Your task to perform on an android device: What is the recent news? Image 0: 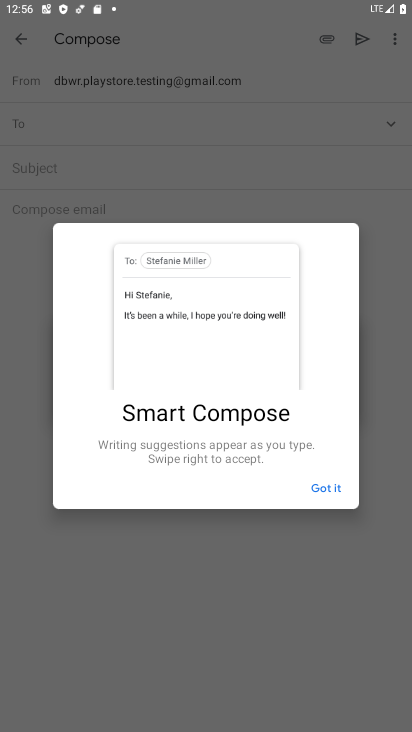
Step 0: press home button
Your task to perform on an android device: What is the recent news? Image 1: 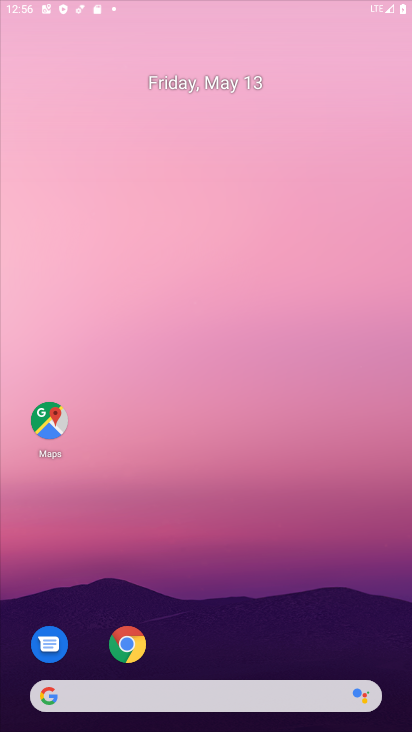
Step 1: drag from (302, 655) to (288, 112)
Your task to perform on an android device: What is the recent news? Image 2: 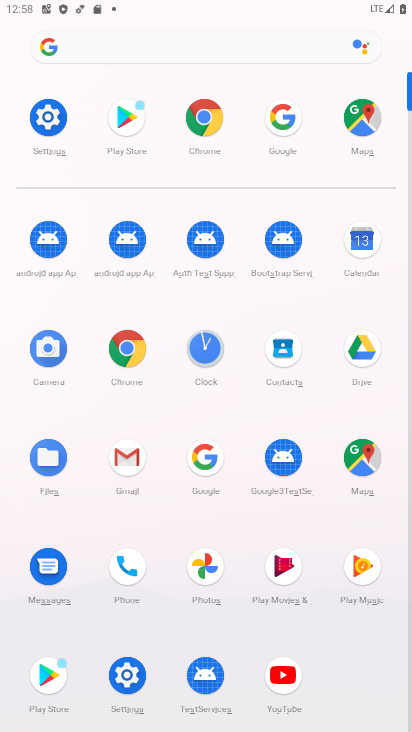
Step 2: click (127, 348)
Your task to perform on an android device: What is the recent news? Image 3: 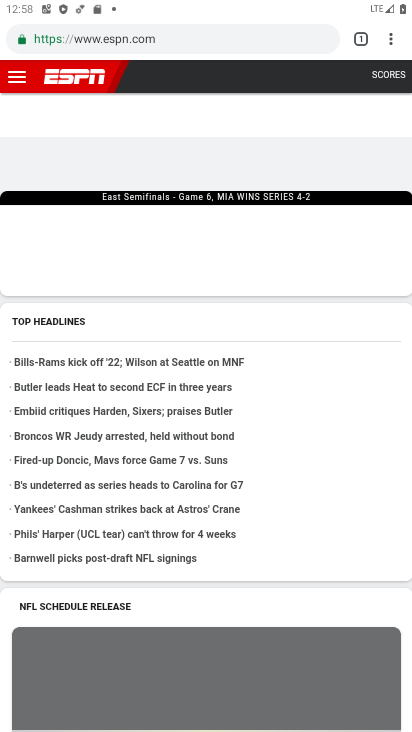
Step 3: press back button
Your task to perform on an android device: What is the recent news? Image 4: 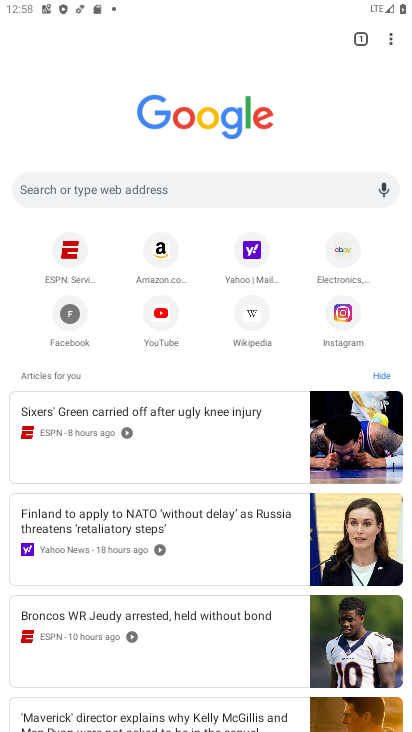
Step 4: click (193, 449)
Your task to perform on an android device: What is the recent news? Image 5: 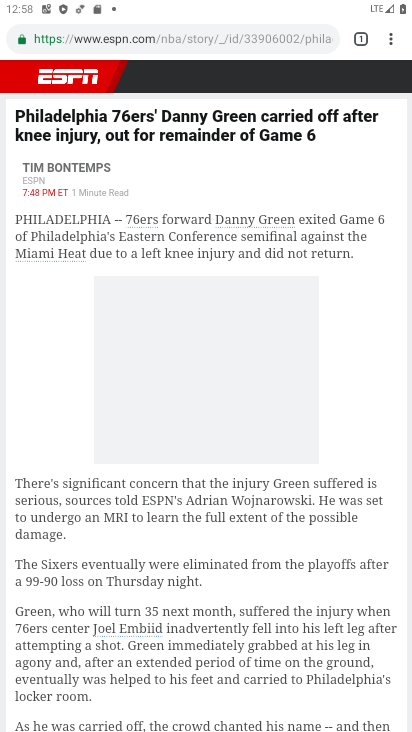
Step 5: task complete